Your task to perform on an android device: Go to location settings Image 0: 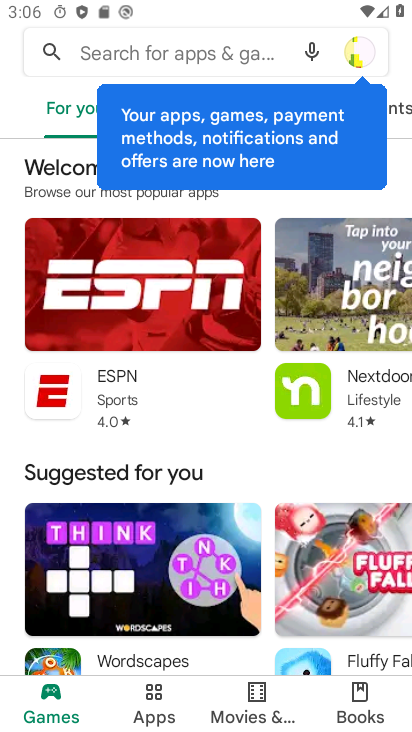
Step 0: press home button
Your task to perform on an android device: Go to location settings Image 1: 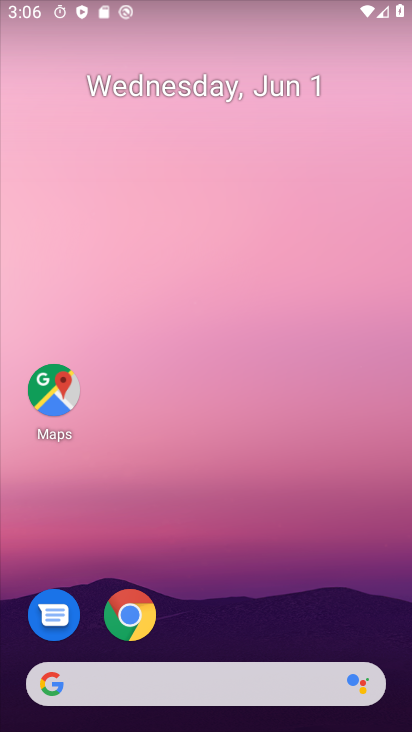
Step 1: drag from (265, 592) to (270, 14)
Your task to perform on an android device: Go to location settings Image 2: 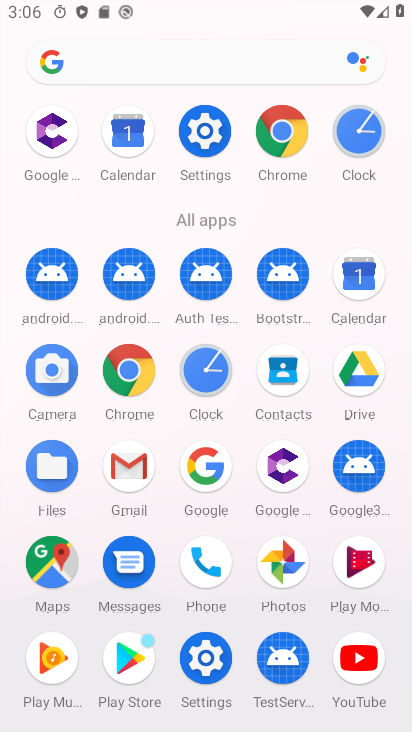
Step 2: click (205, 146)
Your task to perform on an android device: Go to location settings Image 3: 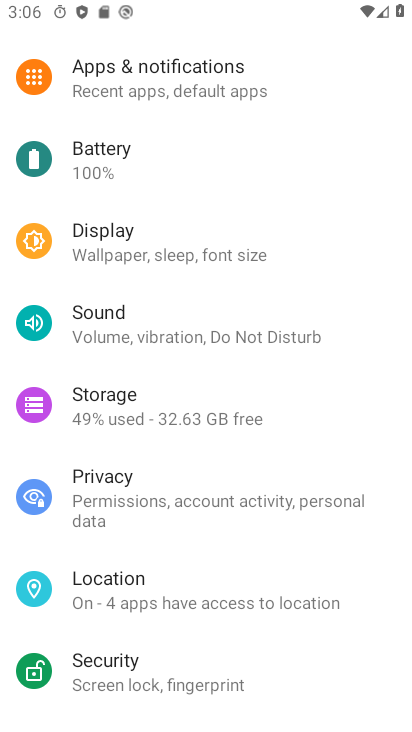
Step 3: click (137, 583)
Your task to perform on an android device: Go to location settings Image 4: 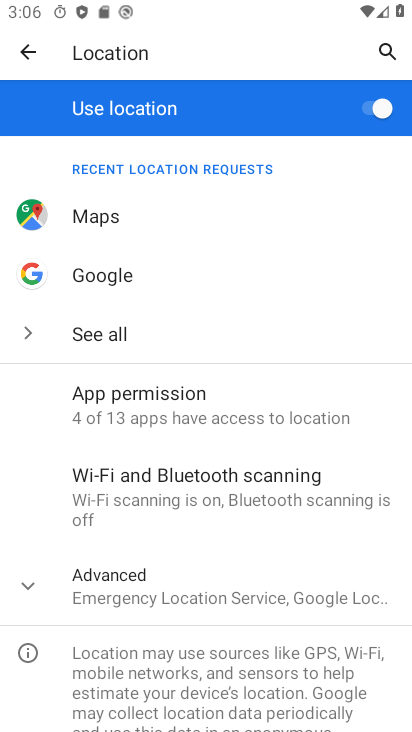
Step 4: task complete